Your task to perform on an android device: open app "PUBG MOBILE" (install if not already installed) and enter user name: "phenomenologically@gmail.com" and password: "artillery" Image 0: 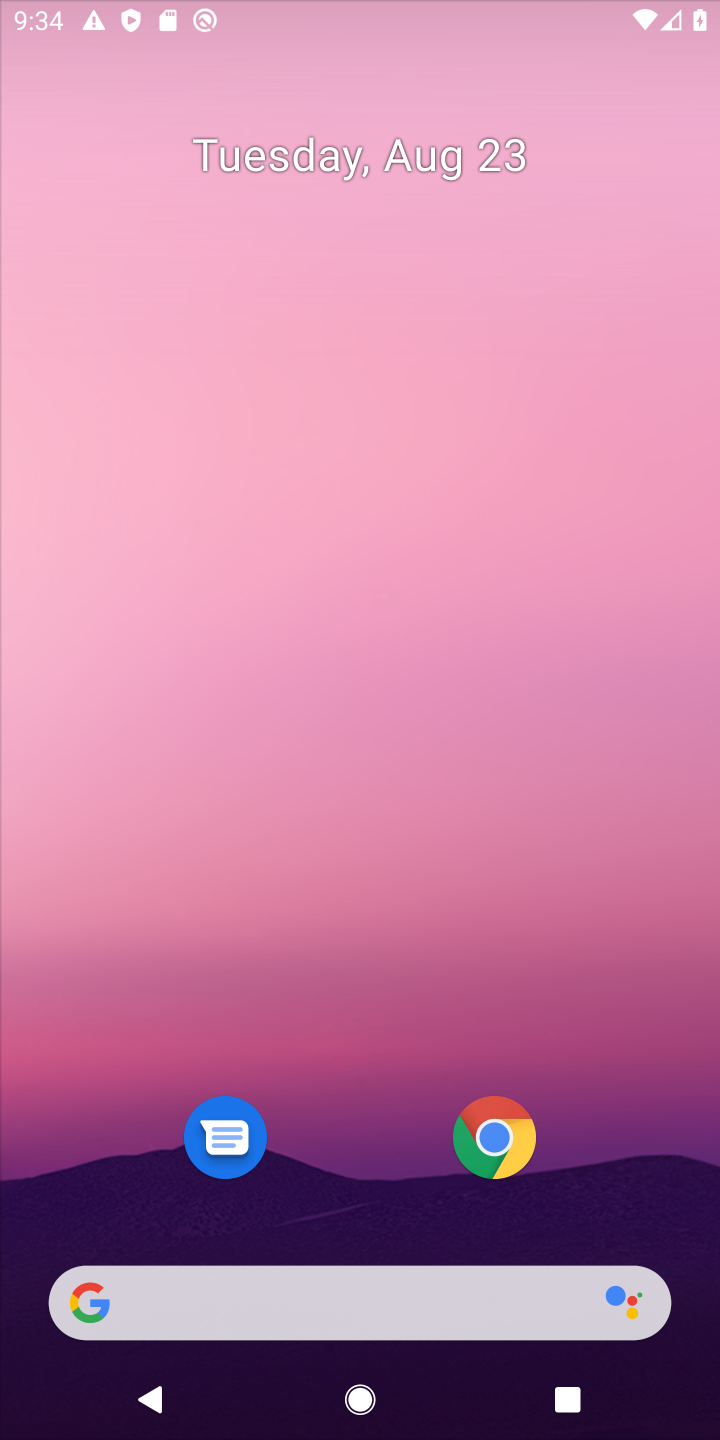
Step 0: press back button
Your task to perform on an android device: open app "PUBG MOBILE" (install if not already installed) and enter user name: "phenomenologically@gmail.com" and password: "artillery" Image 1: 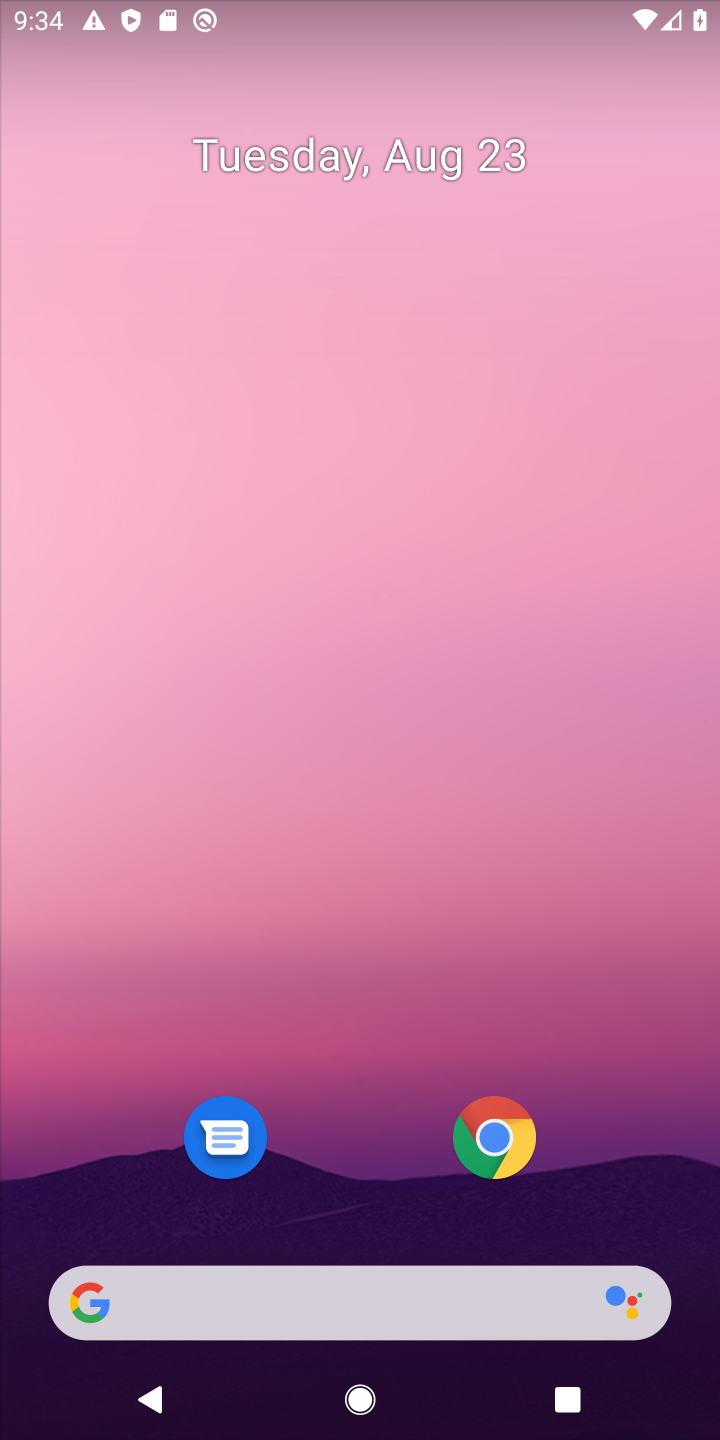
Step 1: drag from (297, 1209) to (291, 284)
Your task to perform on an android device: open app "PUBG MOBILE" (install if not already installed) and enter user name: "phenomenologically@gmail.com" and password: "artillery" Image 2: 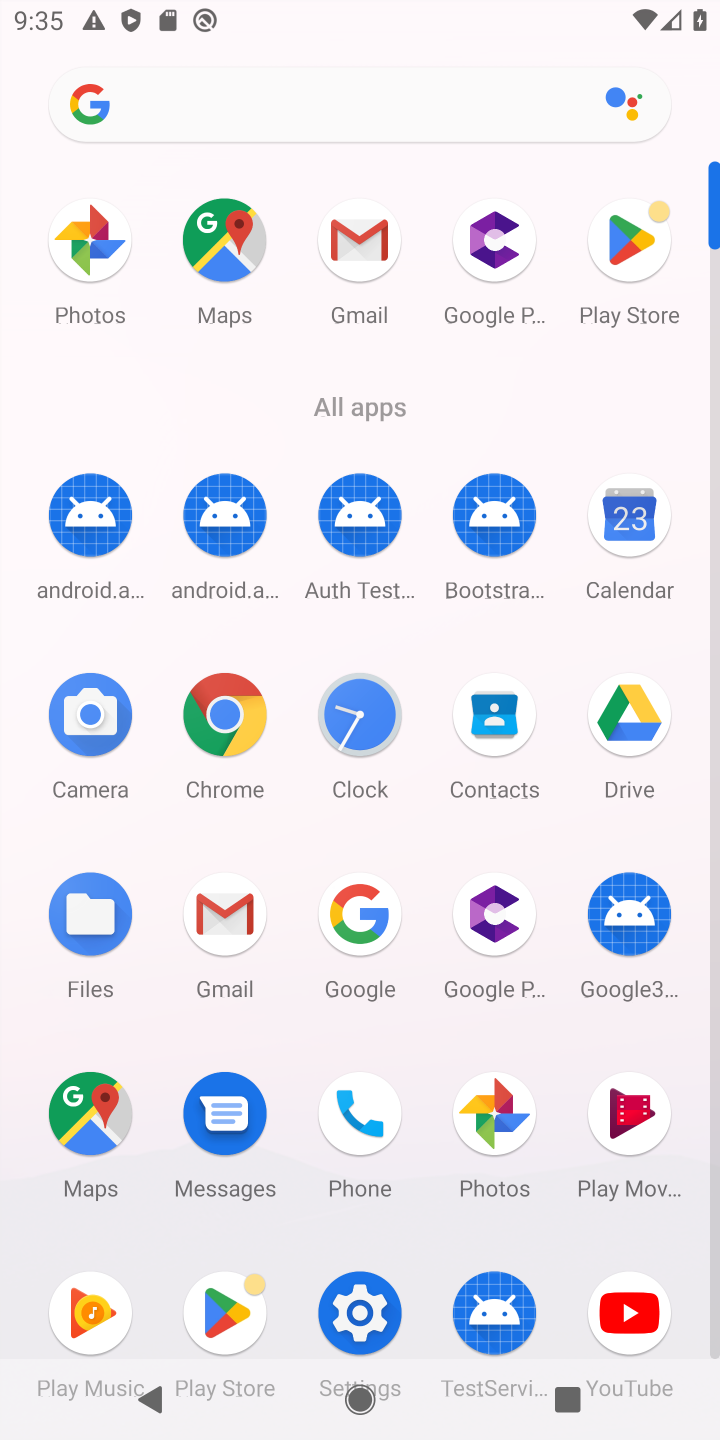
Step 2: click (218, 1315)
Your task to perform on an android device: open app "PUBG MOBILE" (install if not already installed) and enter user name: "phenomenologically@gmail.com" and password: "artillery" Image 3: 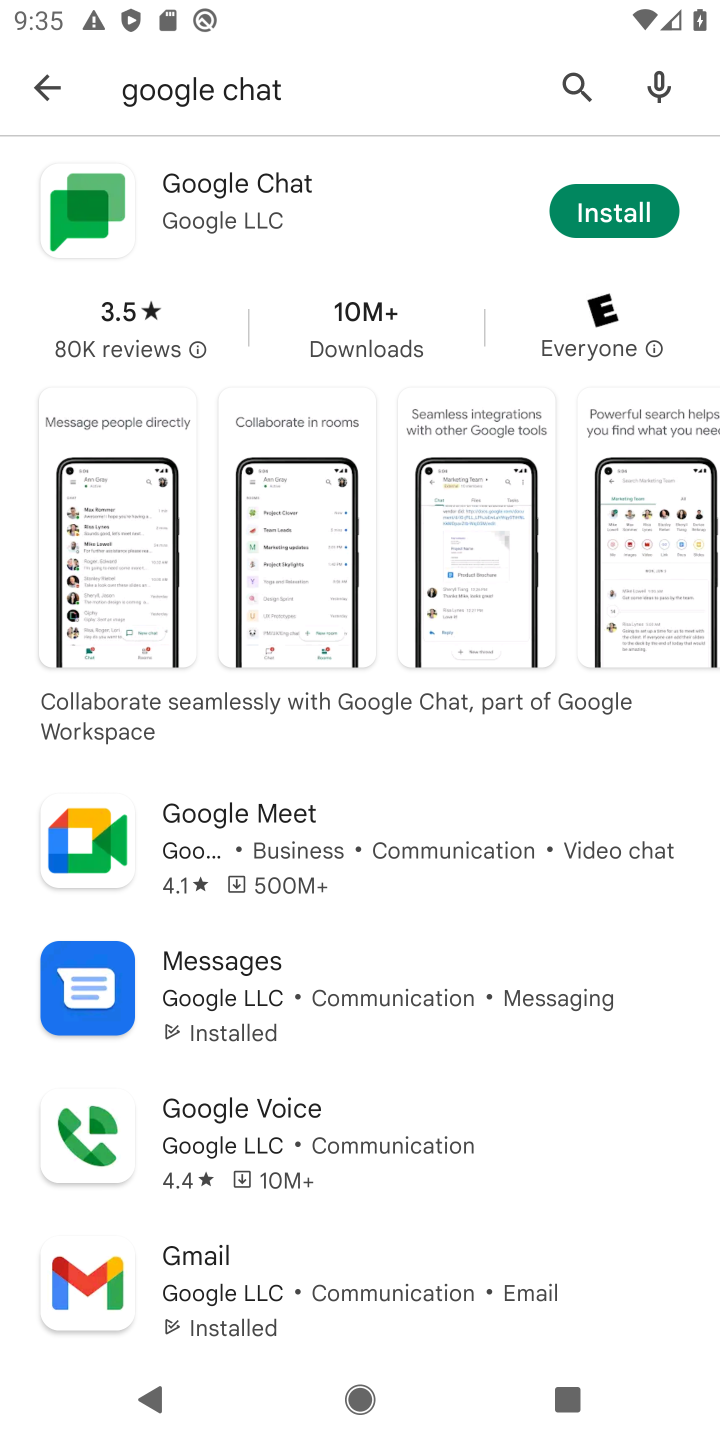
Step 3: click (29, 69)
Your task to perform on an android device: open app "PUBG MOBILE" (install if not already installed) and enter user name: "phenomenologically@gmail.com" and password: "artillery" Image 4: 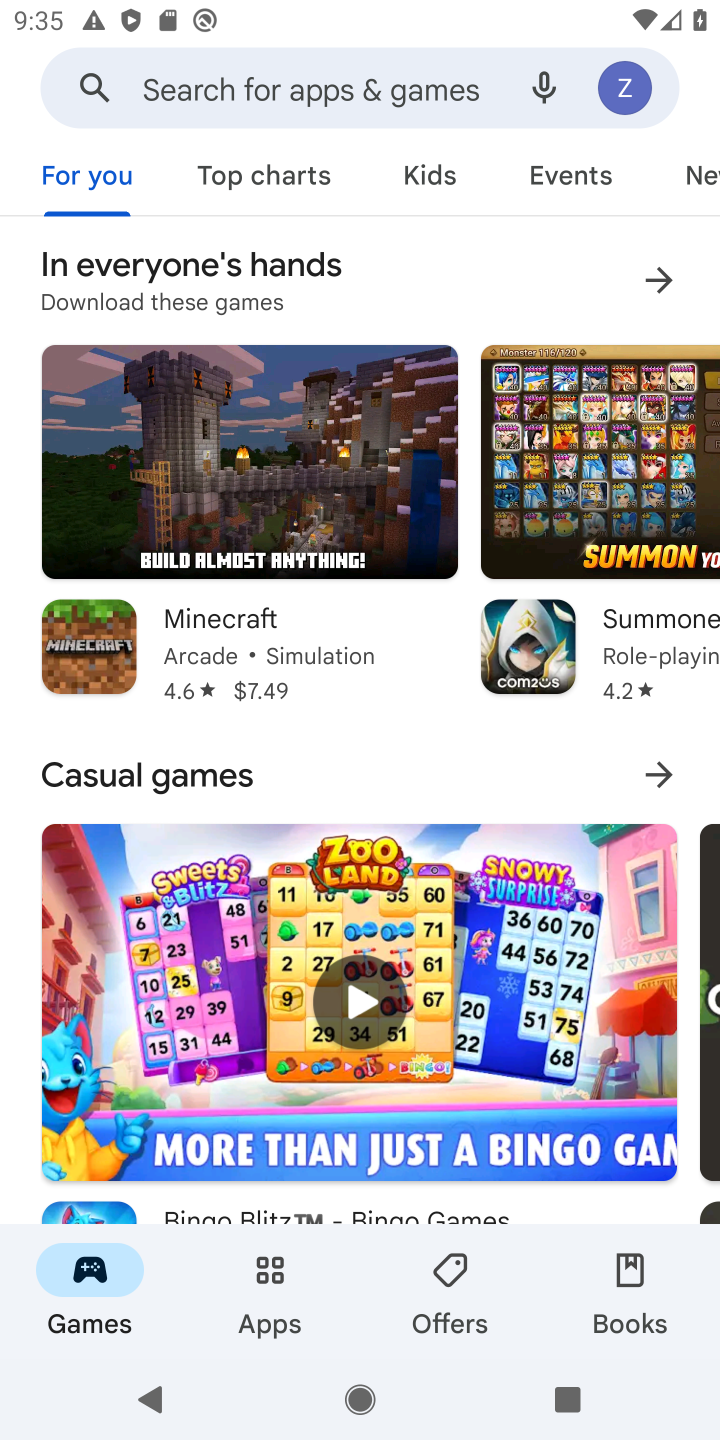
Step 4: click (248, 99)
Your task to perform on an android device: open app "PUBG MOBILE" (install if not already installed) and enter user name: "phenomenologically@gmail.com" and password: "artillery" Image 5: 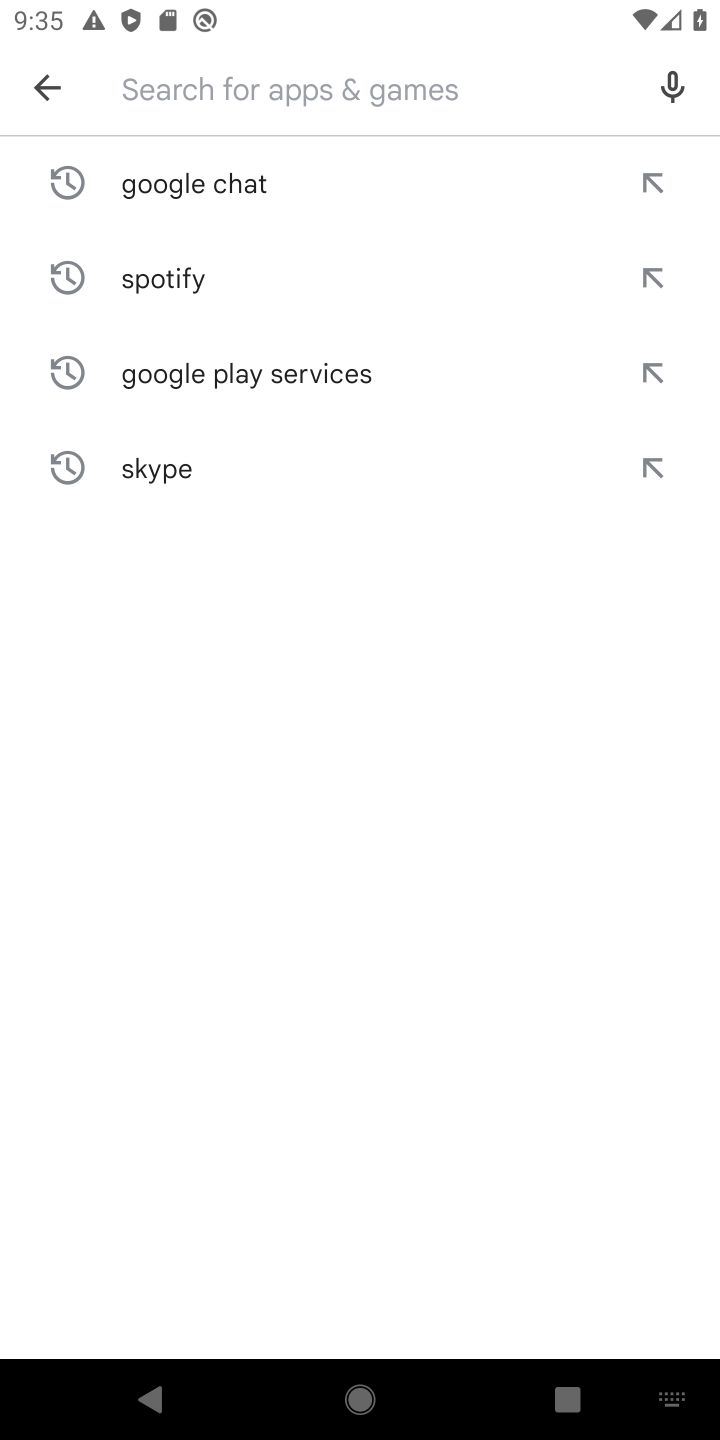
Step 5: click (622, 115)
Your task to perform on an android device: open app "PUBG MOBILE" (install if not already installed) and enter user name: "phenomenologically@gmail.com" and password: "artillery" Image 6: 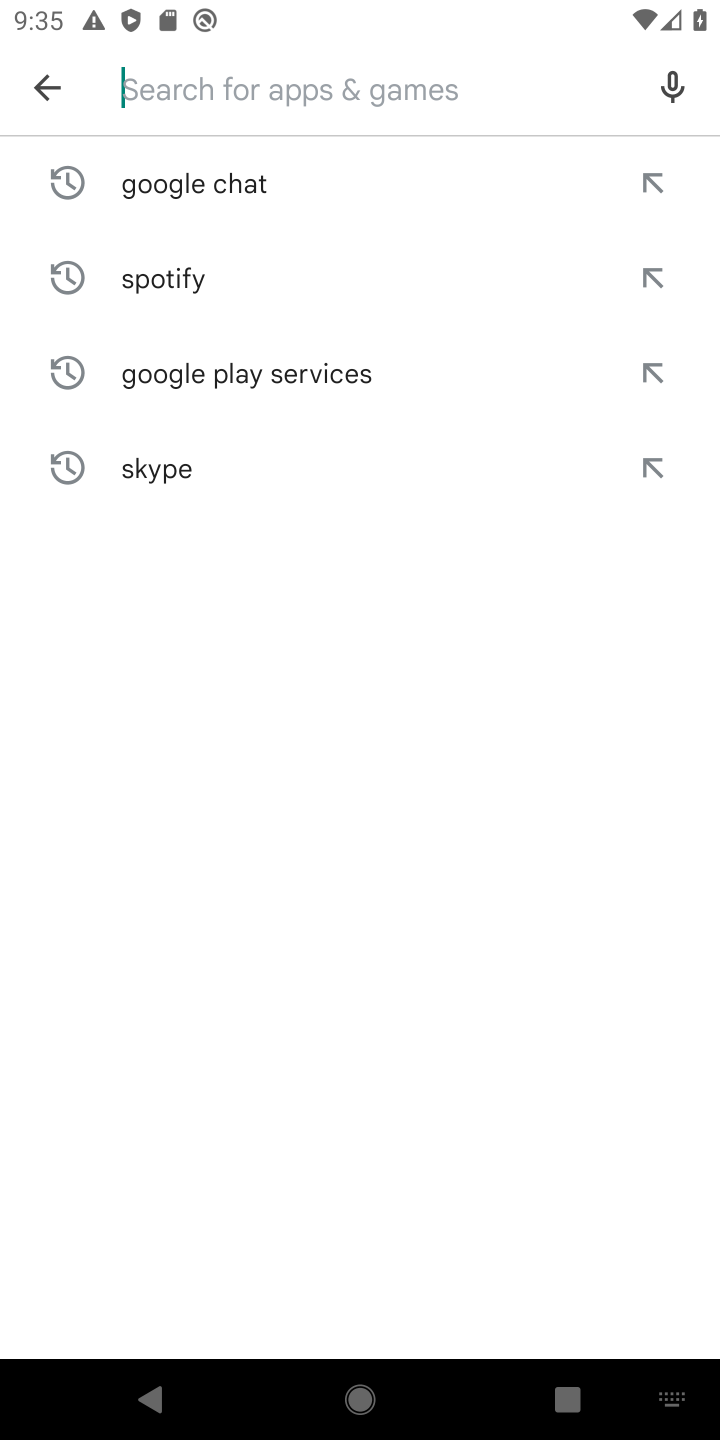
Step 6: type "PUBG MOBILE"
Your task to perform on an android device: open app "PUBG MOBILE" (install if not already installed) and enter user name: "phenomenologically@gmail.com" and password: "artillery" Image 7: 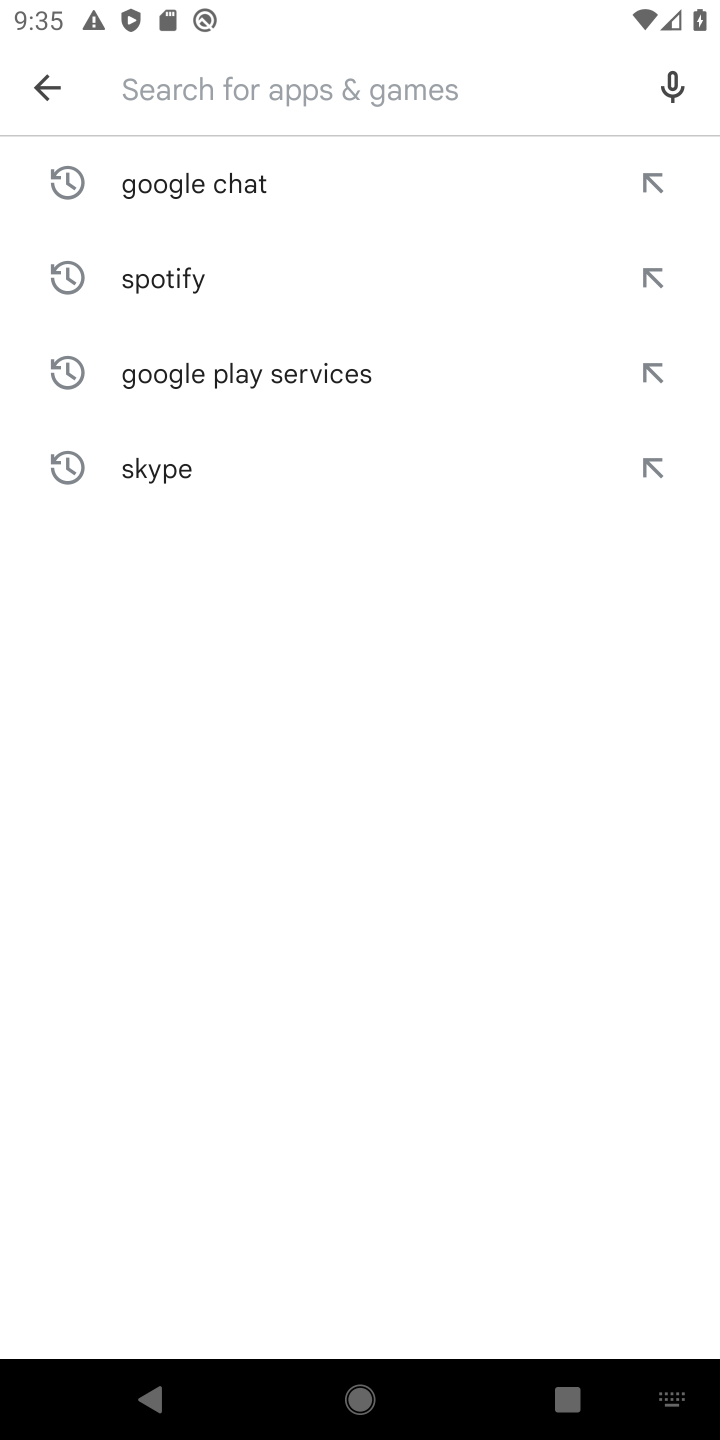
Step 7: click (704, 881)
Your task to perform on an android device: open app "PUBG MOBILE" (install if not already installed) and enter user name: "phenomenologically@gmail.com" and password: "artillery" Image 8: 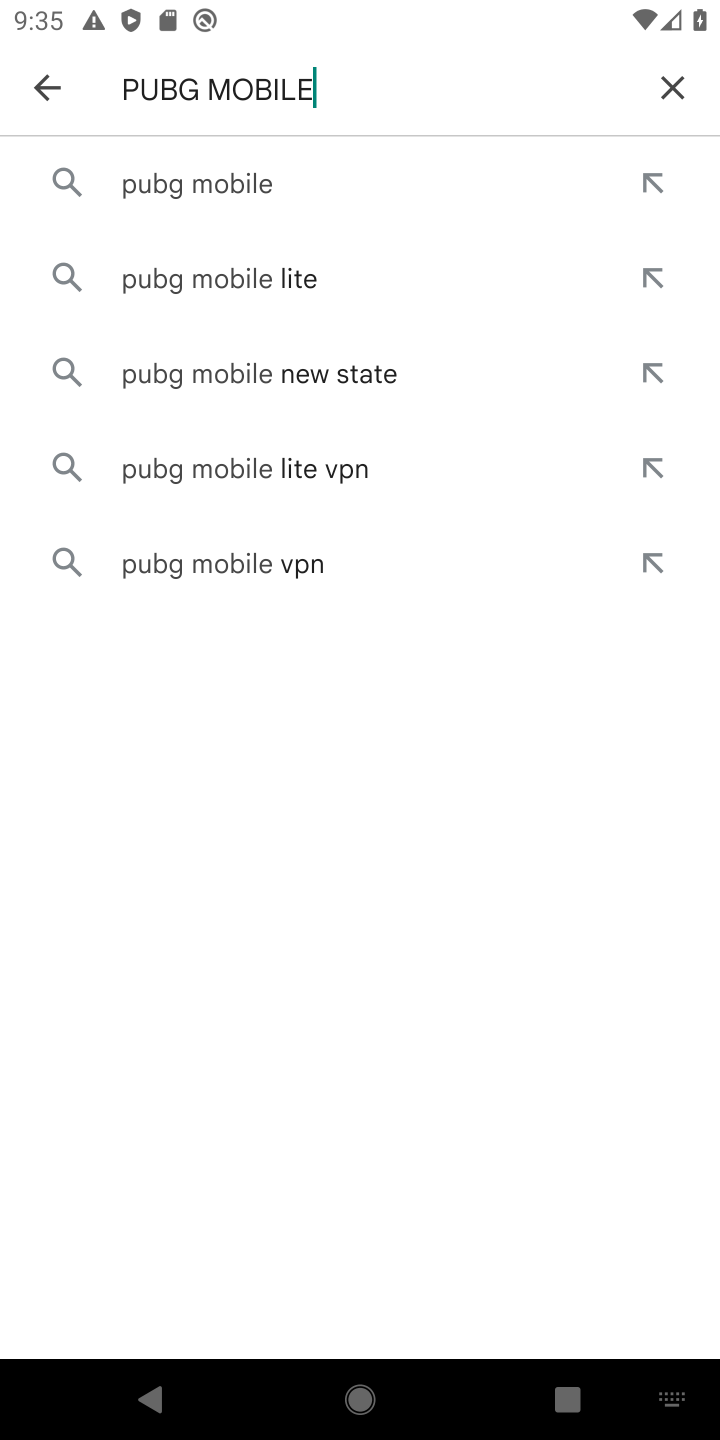
Step 8: click (162, 176)
Your task to perform on an android device: open app "PUBG MOBILE" (install if not already installed) and enter user name: "phenomenologically@gmail.com" and password: "artillery" Image 9: 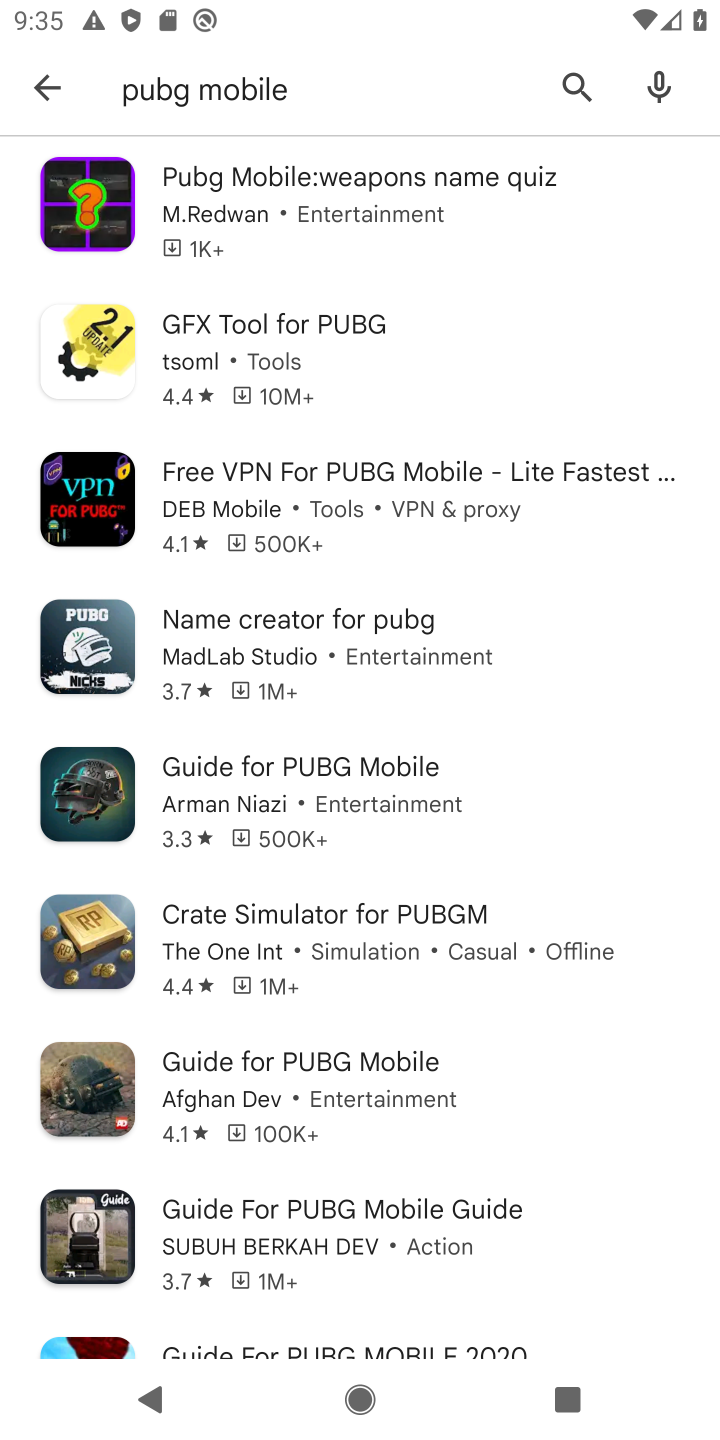
Step 9: task complete